Your task to perform on an android device: turn notification dots off Image 0: 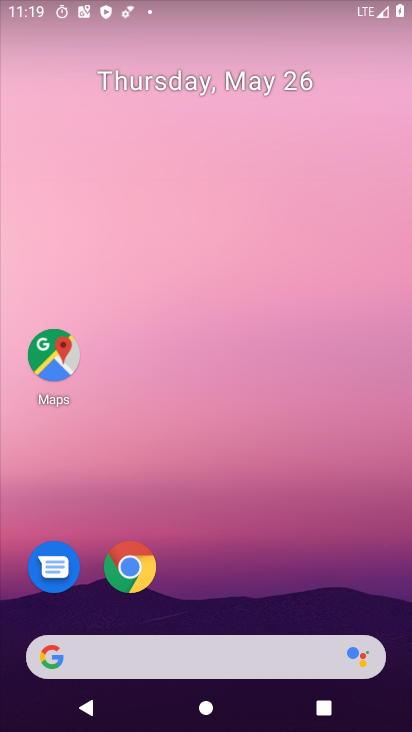
Step 0: drag from (245, 636) to (198, 274)
Your task to perform on an android device: turn notification dots off Image 1: 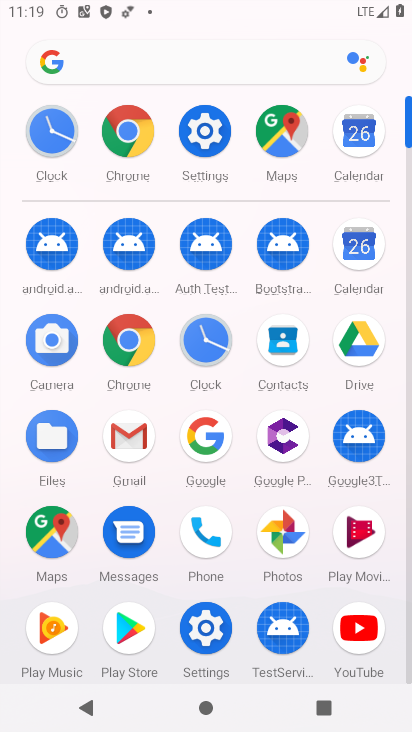
Step 1: click (206, 112)
Your task to perform on an android device: turn notification dots off Image 2: 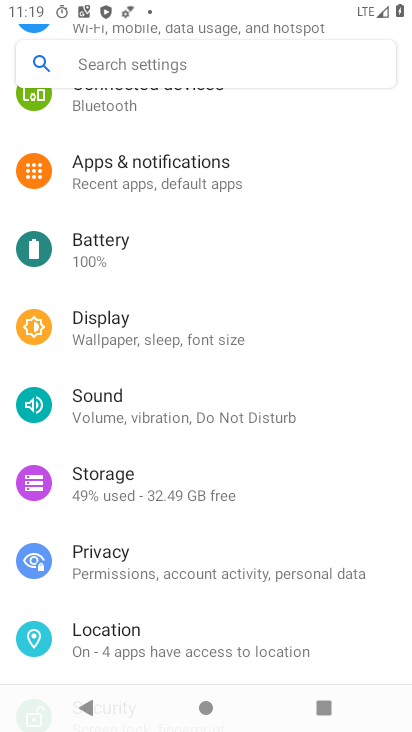
Step 2: click (254, 174)
Your task to perform on an android device: turn notification dots off Image 3: 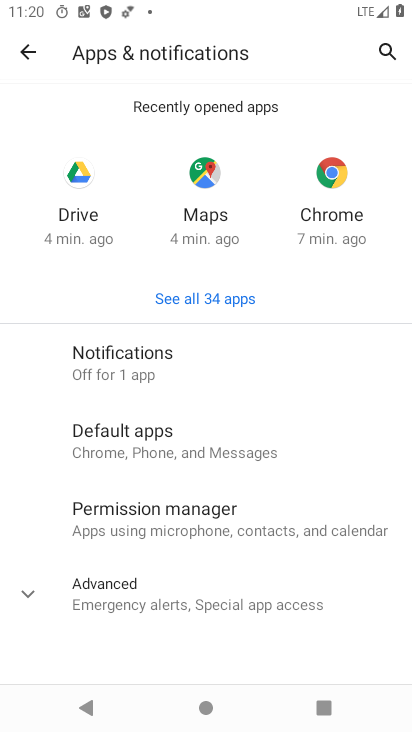
Step 3: click (236, 362)
Your task to perform on an android device: turn notification dots off Image 4: 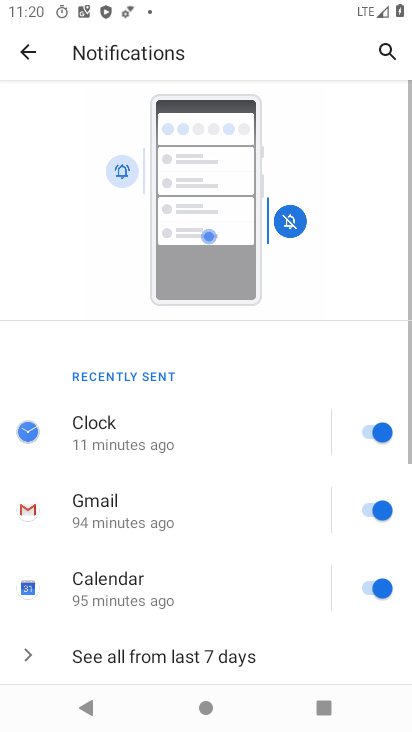
Step 4: drag from (287, 563) to (282, 38)
Your task to perform on an android device: turn notification dots off Image 5: 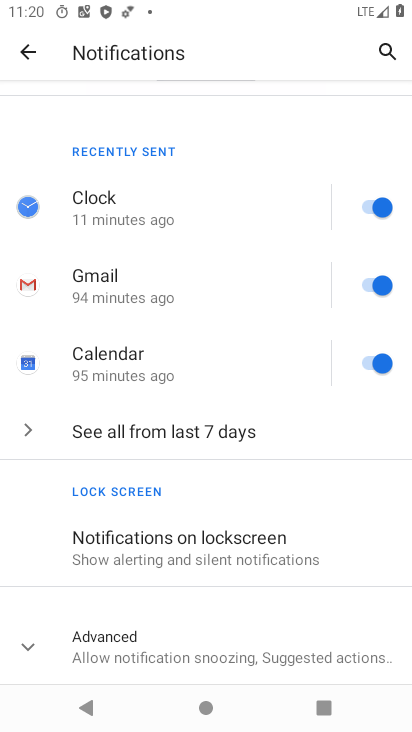
Step 5: click (291, 652)
Your task to perform on an android device: turn notification dots off Image 6: 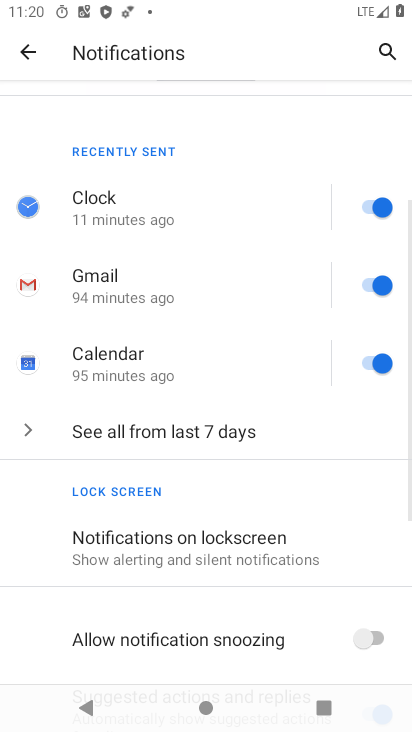
Step 6: task complete